Your task to perform on an android device: Go to display settings Image 0: 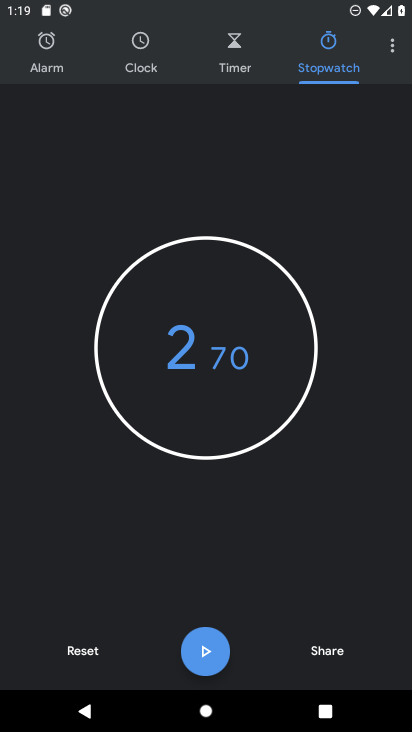
Step 0: press home button
Your task to perform on an android device: Go to display settings Image 1: 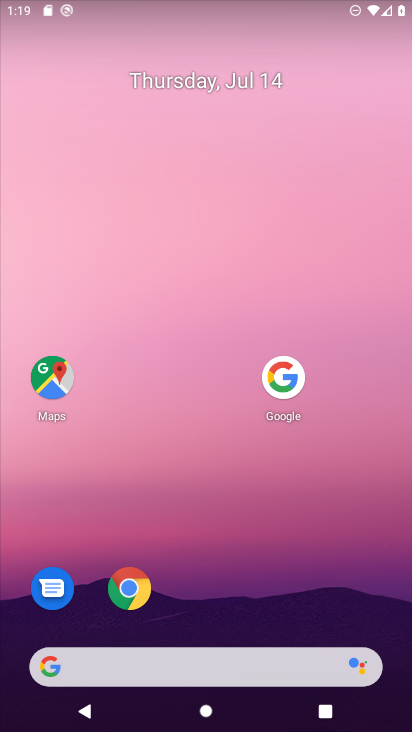
Step 1: drag from (207, 666) to (214, 69)
Your task to perform on an android device: Go to display settings Image 2: 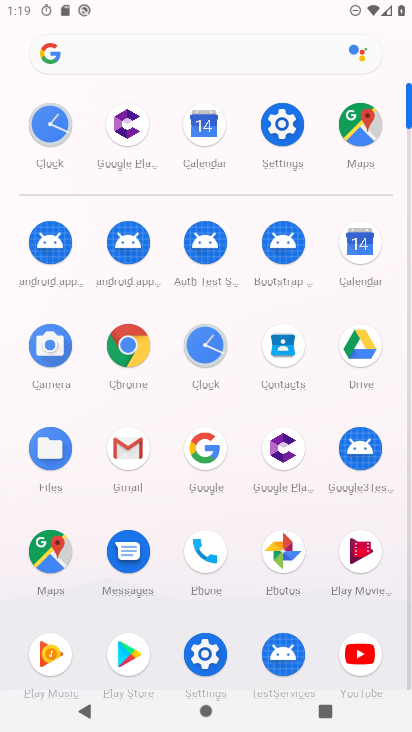
Step 2: click (288, 125)
Your task to perform on an android device: Go to display settings Image 3: 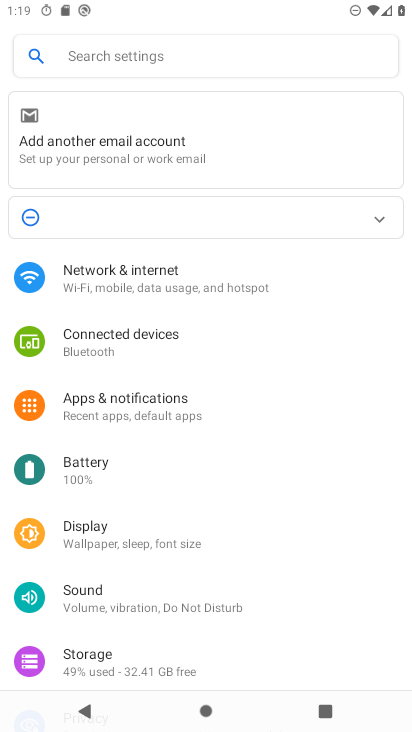
Step 3: click (98, 536)
Your task to perform on an android device: Go to display settings Image 4: 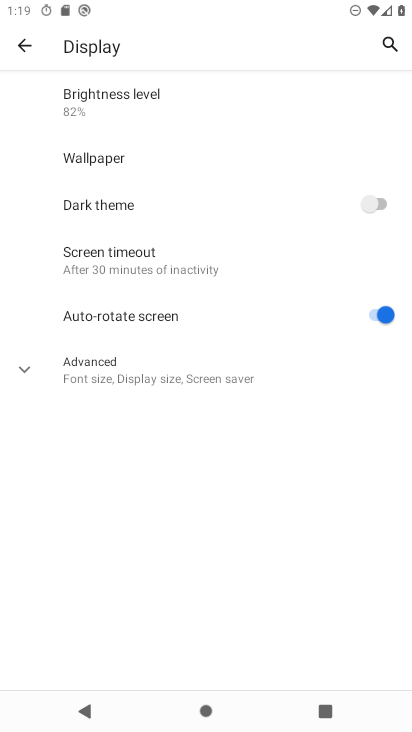
Step 4: task complete